Your task to perform on an android device: empty trash in the gmail app Image 0: 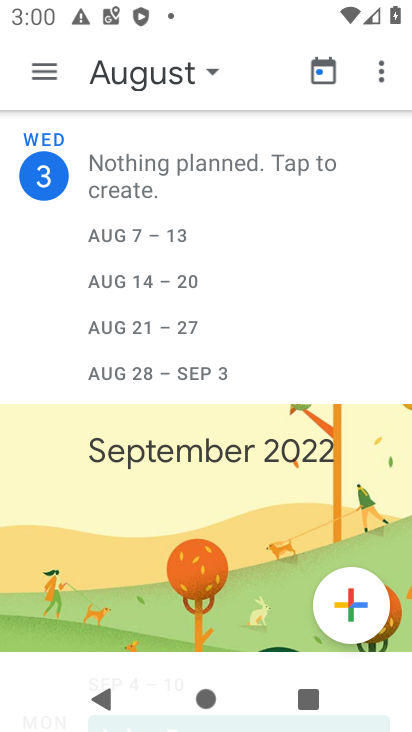
Step 0: press home button
Your task to perform on an android device: empty trash in the gmail app Image 1: 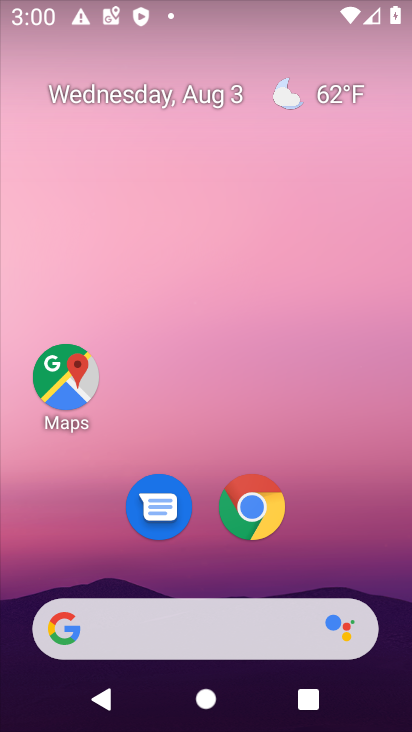
Step 1: drag from (339, 584) to (170, 169)
Your task to perform on an android device: empty trash in the gmail app Image 2: 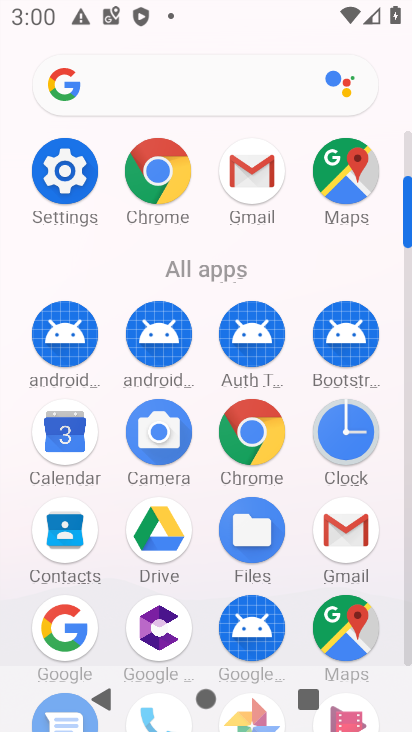
Step 2: click (248, 179)
Your task to perform on an android device: empty trash in the gmail app Image 3: 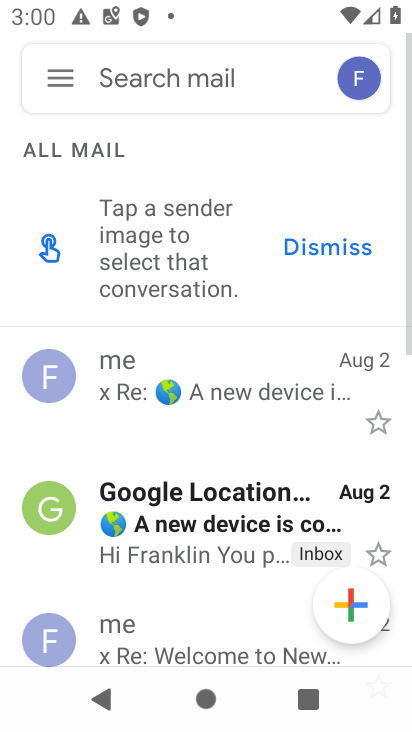
Step 3: click (63, 75)
Your task to perform on an android device: empty trash in the gmail app Image 4: 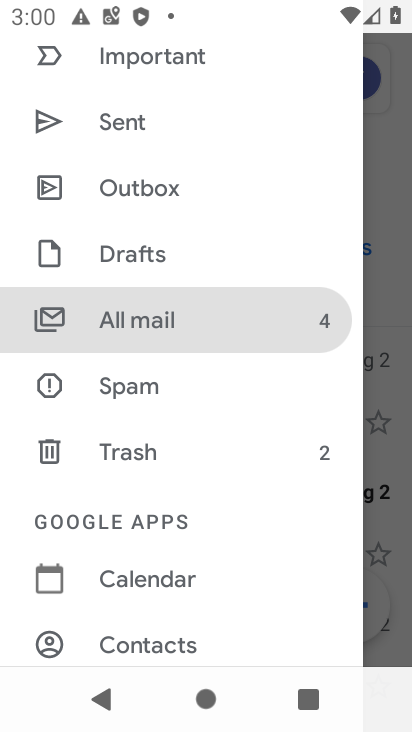
Step 4: click (155, 454)
Your task to perform on an android device: empty trash in the gmail app Image 5: 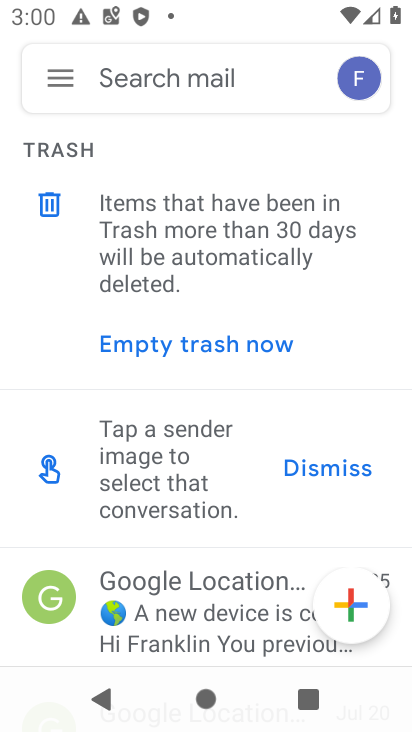
Step 5: click (164, 345)
Your task to perform on an android device: empty trash in the gmail app Image 6: 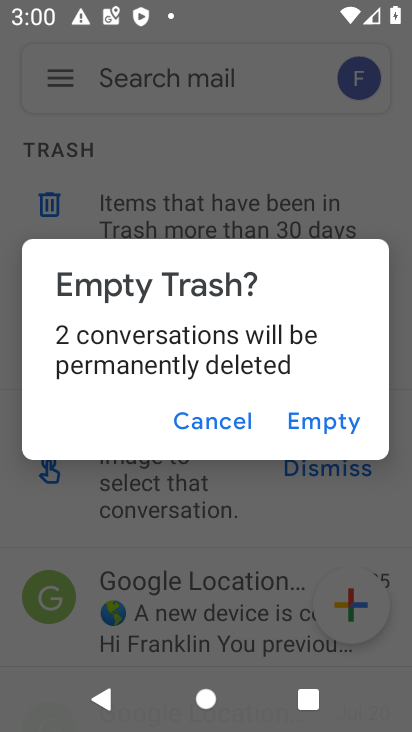
Step 6: click (338, 423)
Your task to perform on an android device: empty trash in the gmail app Image 7: 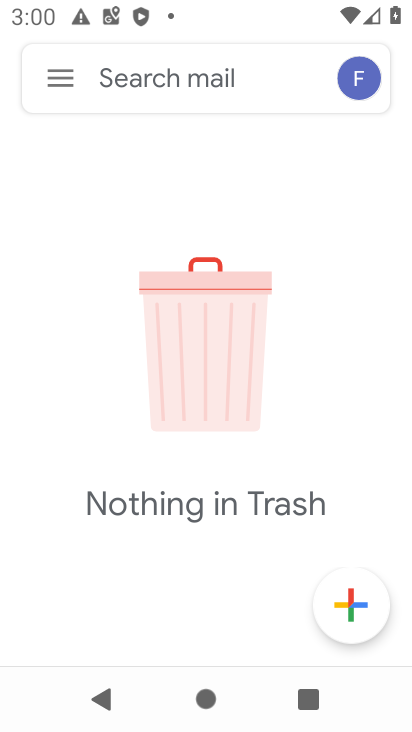
Step 7: task complete